Your task to perform on an android device: uninstall "Mercado Libre" Image 0: 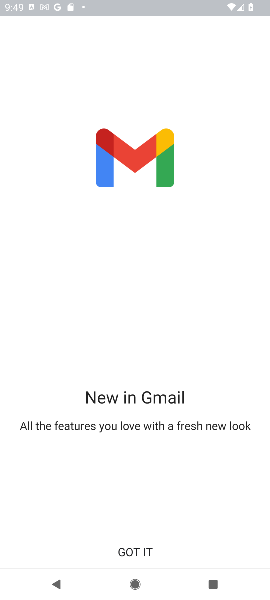
Step 0: press home button
Your task to perform on an android device: uninstall "Mercado Libre" Image 1: 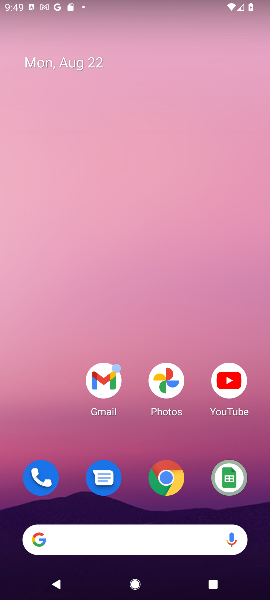
Step 1: drag from (143, 507) to (94, 60)
Your task to perform on an android device: uninstall "Mercado Libre" Image 2: 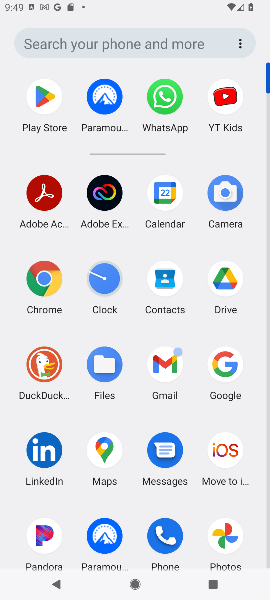
Step 2: click (39, 100)
Your task to perform on an android device: uninstall "Mercado Libre" Image 3: 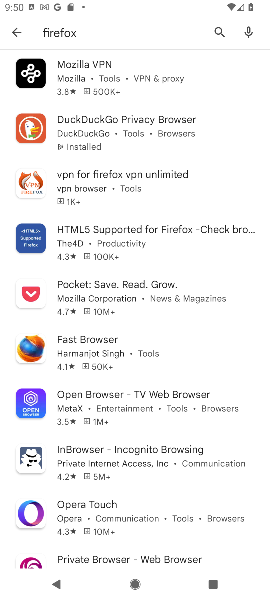
Step 3: click (214, 27)
Your task to perform on an android device: uninstall "Mercado Libre" Image 4: 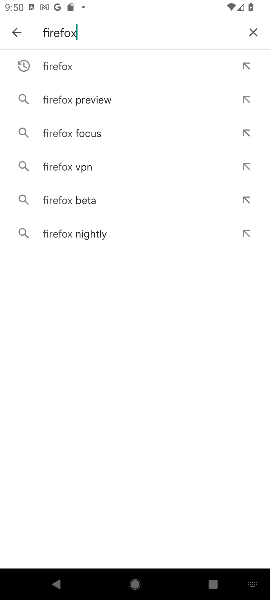
Step 4: click (245, 30)
Your task to perform on an android device: uninstall "Mercado Libre" Image 5: 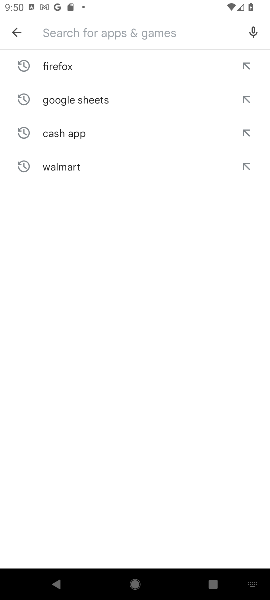
Step 5: type "mercado liber"
Your task to perform on an android device: uninstall "Mercado Libre" Image 6: 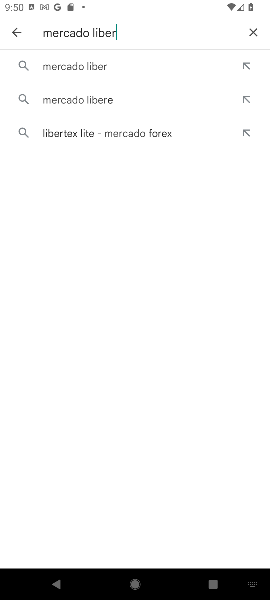
Step 6: click (121, 74)
Your task to perform on an android device: uninstall "Mercado Libre" Image 7: 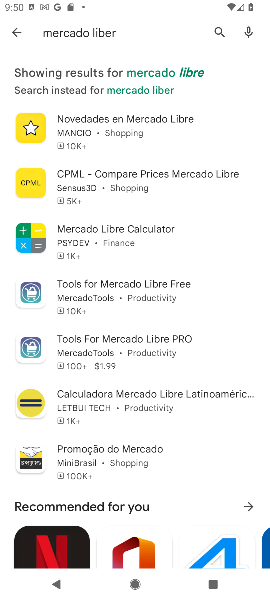
Step 7: task complete